Your task to perform on an android device: Is it going to rain this weekend? Image 0: 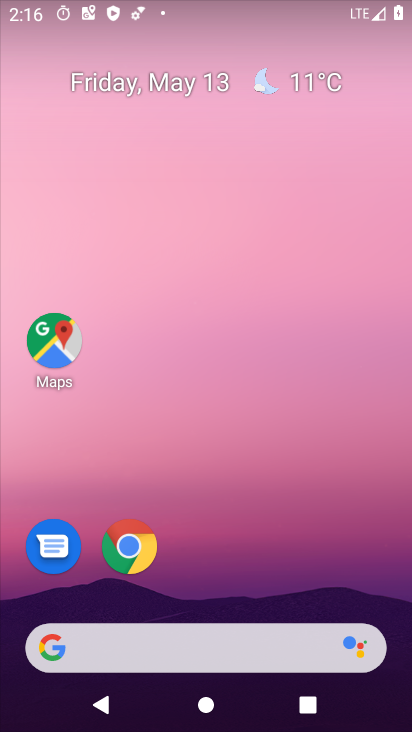
Step 0: drag from (253, 542) to (292, 34)
Your task to perform on an android device: Is it going to rain this weekend? Image 1: 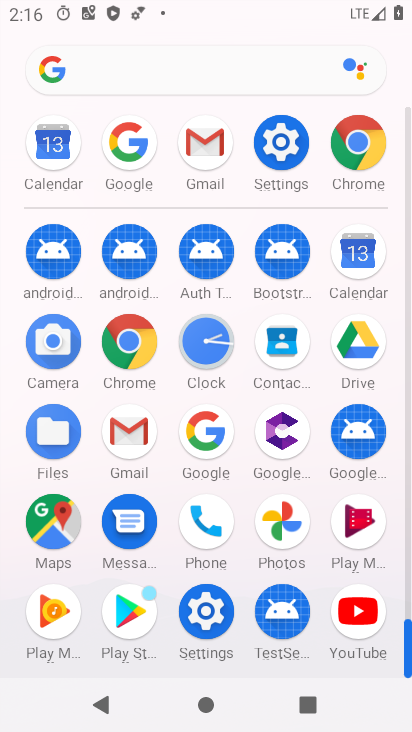
Step 1: drag from (195, 496) to (211, 293)
Your task to perform on an android device: Is it going to rain this weekend? Image 2: 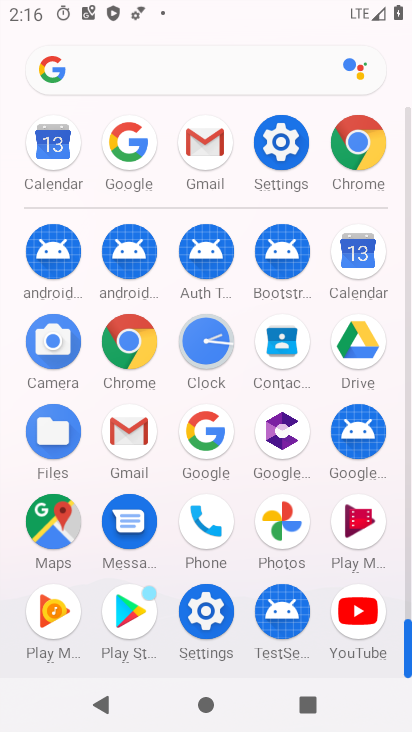
Step 2: click (223, 450)
Your task to perform on an android device: Is it going to rain this weekend? Image 3: 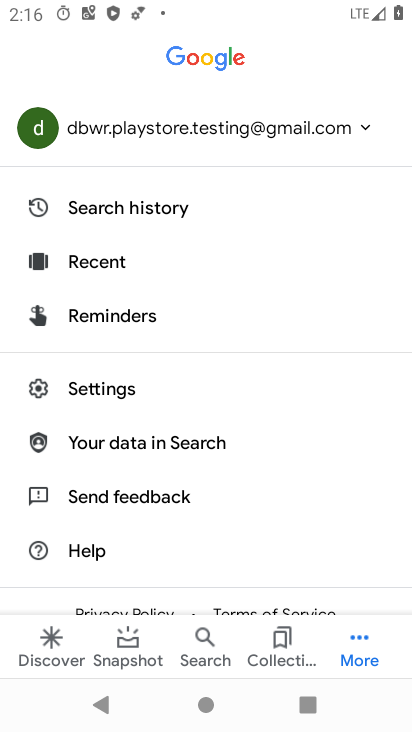
Step 3: click (53, 656)
Your task to perform on an android device: Is it going to rain this weekend? Image 4: 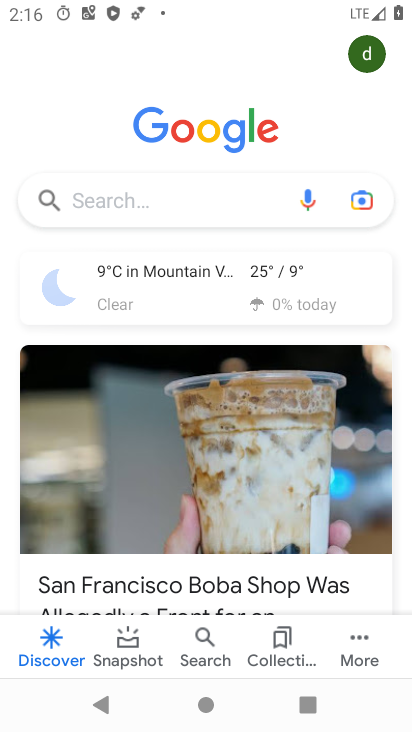
Step 4: click (210, 205)
Your task to perform on an android device: Is it going to rain this weekend? Image 5: 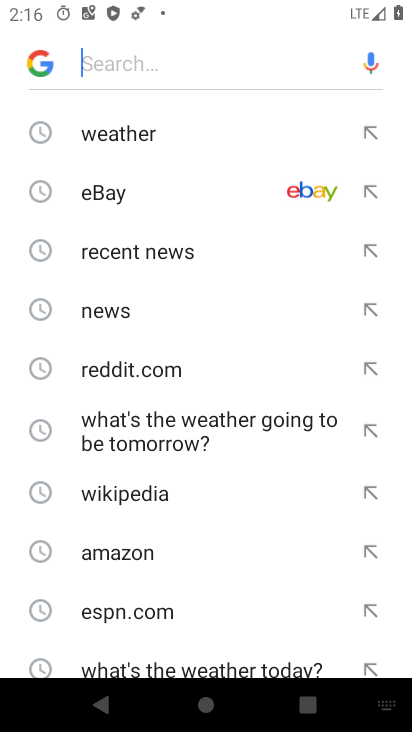
Step 5: click (186, 128)
Your task to perform on an android device: Is it going to rain this weekend? Image 6: 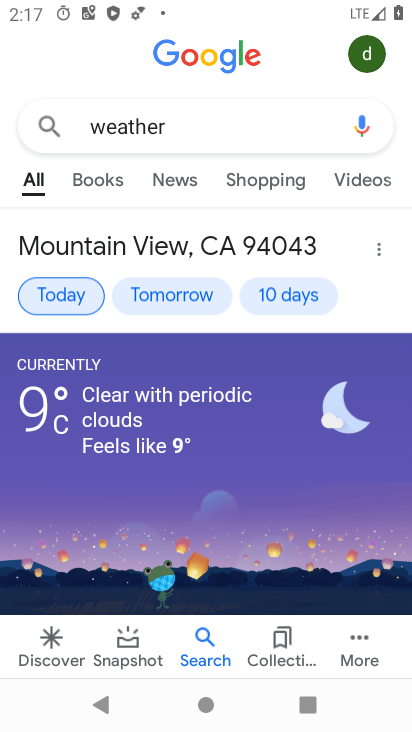
Step 6: click (179, 287)
Your task to perform on an android device: Is it going to rain this weekend? Image 7: 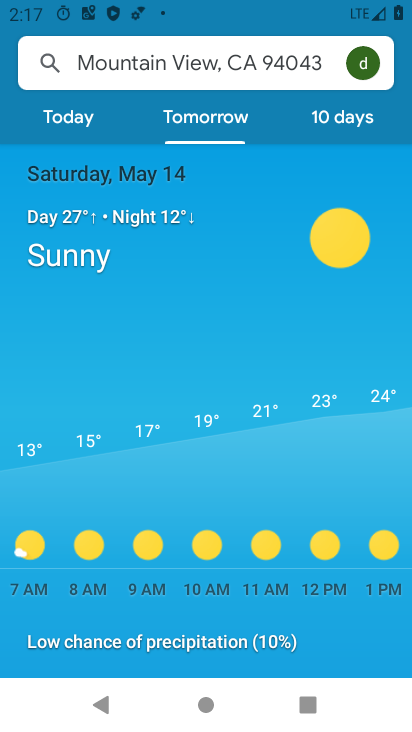
Step 7: click (367, 104)
Your task to perform on an android device: Is it going to rain this weekend? Image 8: 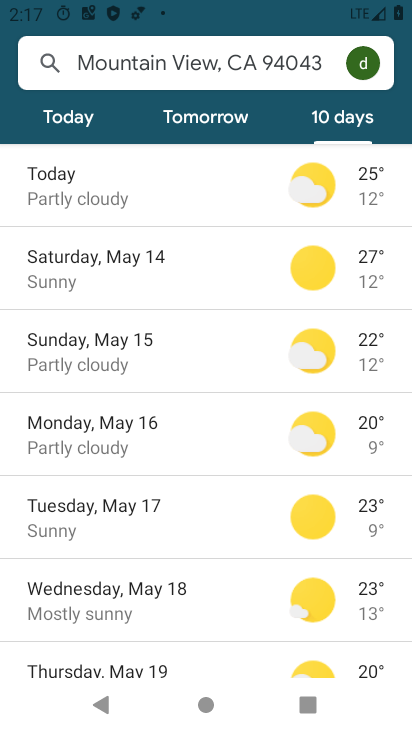
Step 8: task complete